Your task to perform on an android device: toggle priority inbox in the gmail app Image 0: 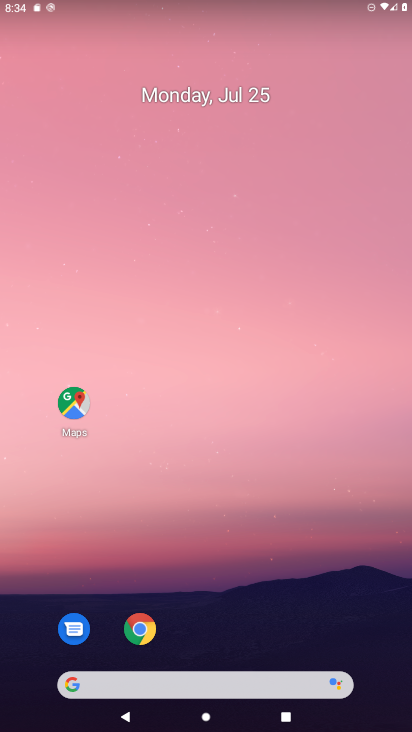
Step 0: drag from (234, 652) to (243, 28)
Your task to perform on an android device: toggle priority inbox in the gmail app Image 1: 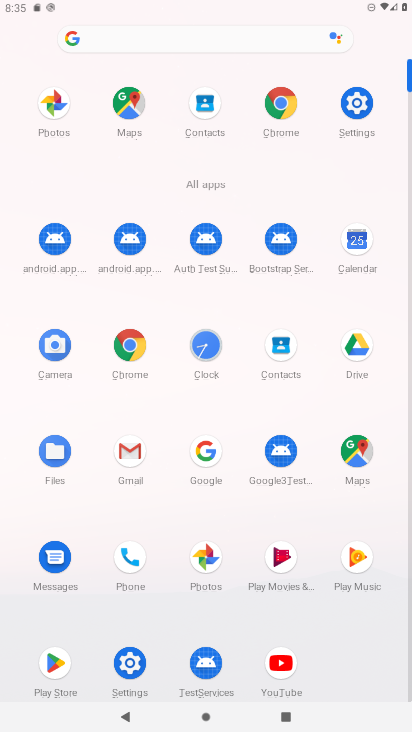
Step 1: click (133, 440)
Your task to perform on an android device: toggle priority inbox in the gmail app Image 2: 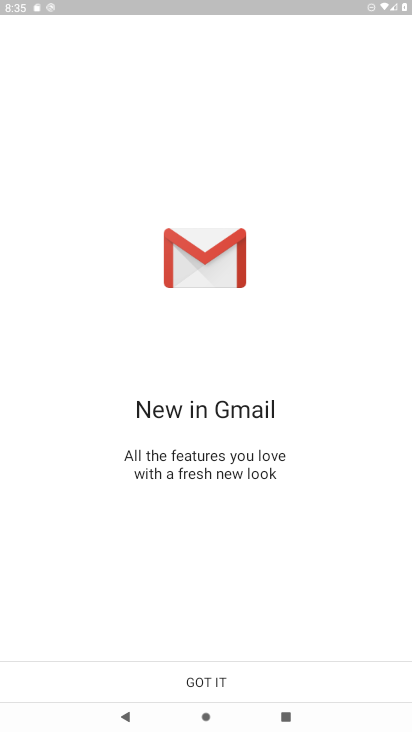
Step 2: click (207, 681)
Your task to perform on an android device: toggle priority inbox in the gmail app Image 3: 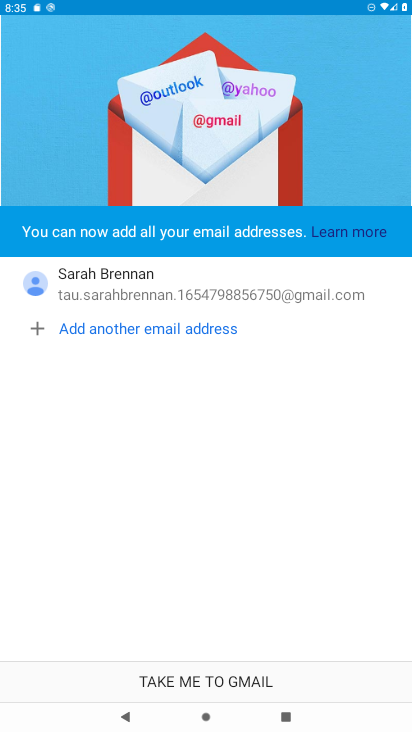
Step 3: click (207, 681)
Your task to perform on an android device: toggle priority inbox in the gmail app Image 4: 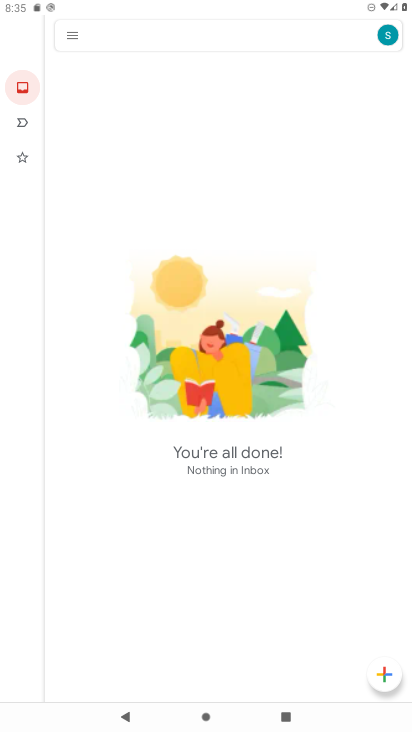
Step 4: click (77, 40)
Your task to perform on an android device: toggle priority inbox in the gmail app Image 5: 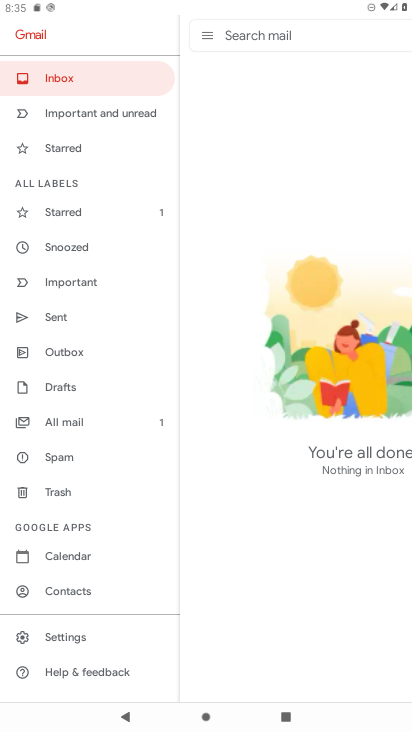
Step 5: click (73, 640)
Your task to perform on an android device: toggle priority inbox in the gmail app Image 6: 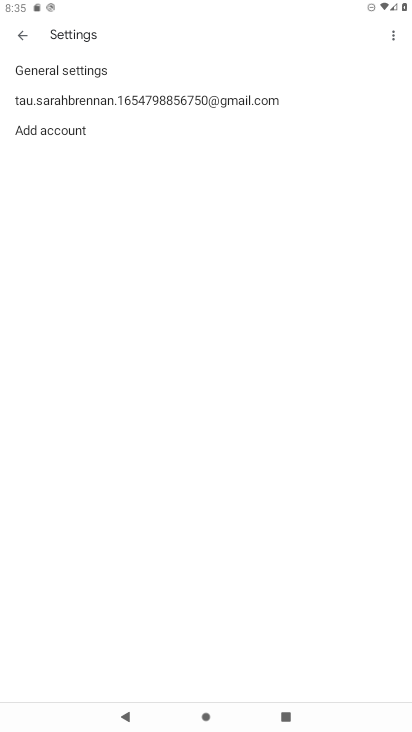
Step 6: click (49, 110)
Your task to perform on an android device: toggle priority inbox in the gmail app Image 7: 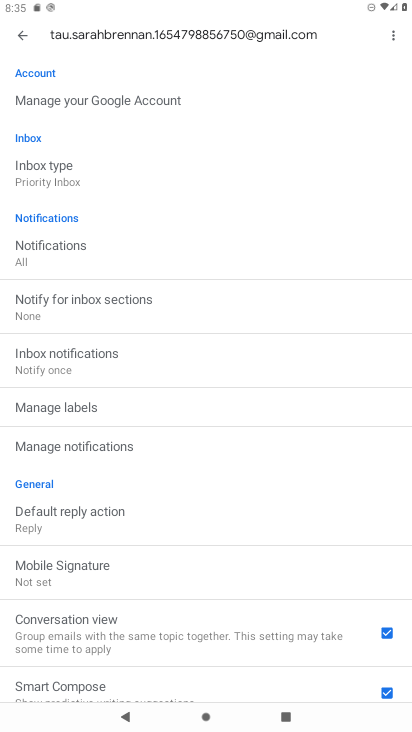
Step 7: click (54, 184)
Your task to perform on an android device: toggle priority inbox in the gmail app Image 8: 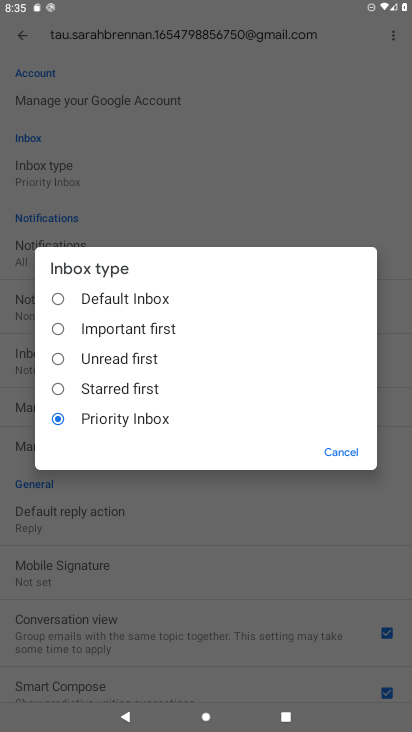
Step 8: click (61, 306)
Your task to perform on an android device: toggle priority inbox in the gmail app Image 9: 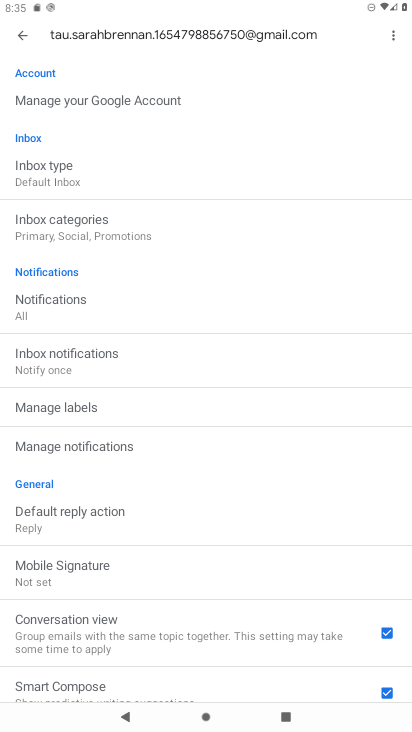
Step 9: task complete